Your task to perform on an android device: Go to sound settings Image 0: 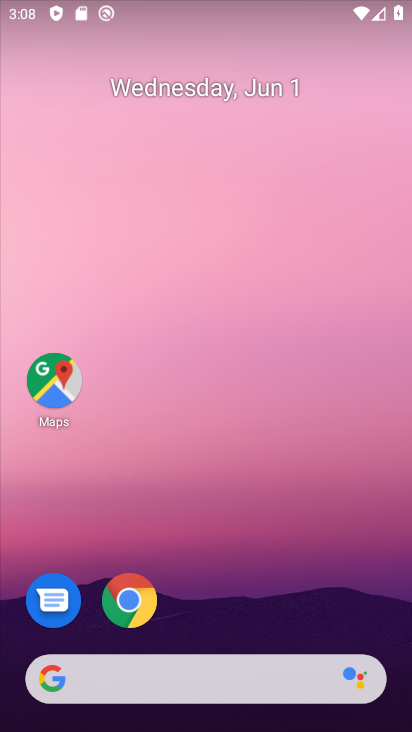
Step 0: drag from (177, 634) to (201, 235)
Your task to perform on an android device: Go to sound settings Image 1: 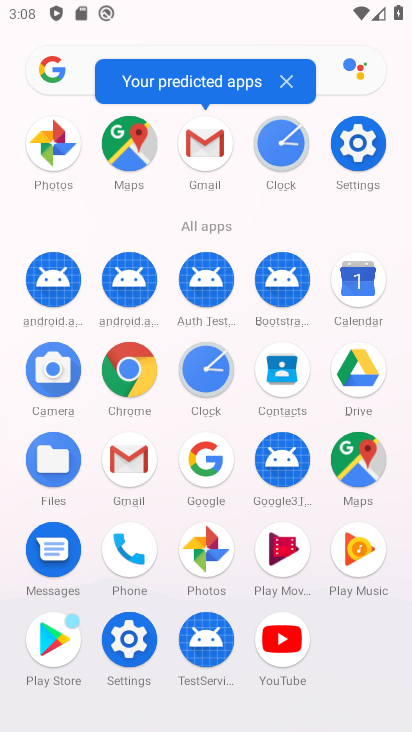
Step 1: drag from (256, 616) to (292, 211)
Your task to perform on an android device: Go to sound settings Image 2: 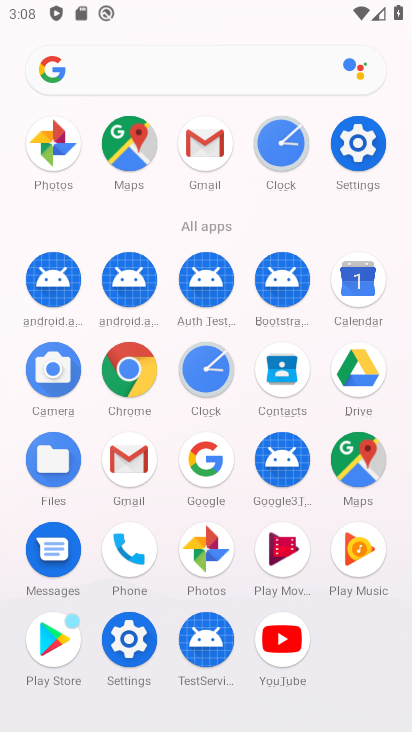
Step 2: click (121, 641)
Your task to perform on an android device: Go to sound settings Image 3: 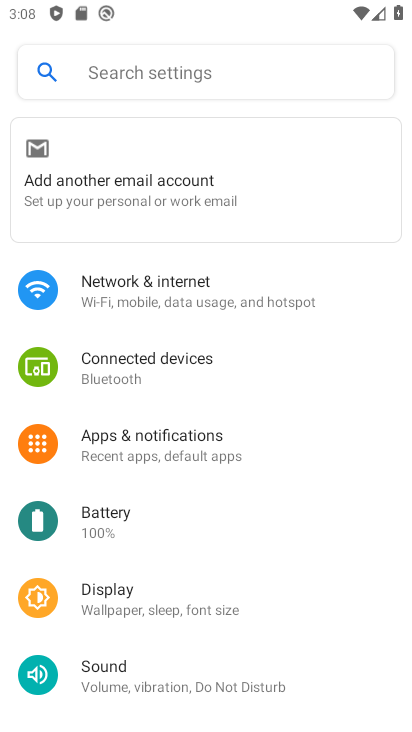
Step 3: click (115, 689)
Your task to perform on an android device: Go to sound settings Image 4: 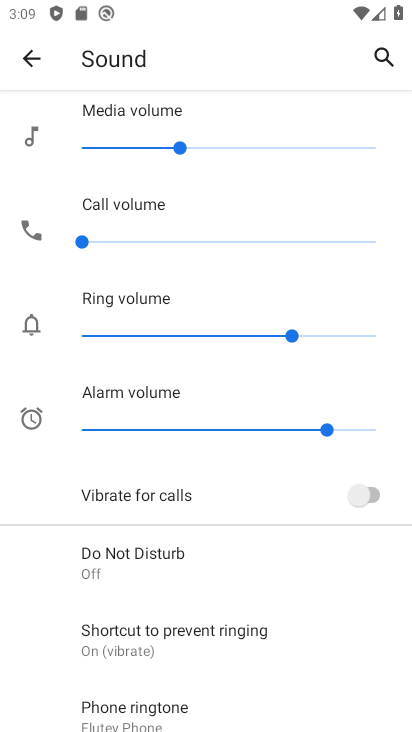
Step 4: task complete